Your task to perform on an android device: check out phone information Image 0: 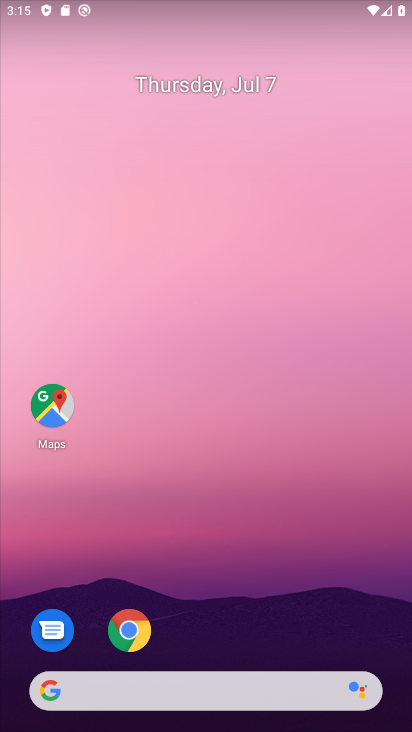
Step 0: drag from (360, 608) to (361, 182)
Your task to perform on an android device: check out phone information Image 1: 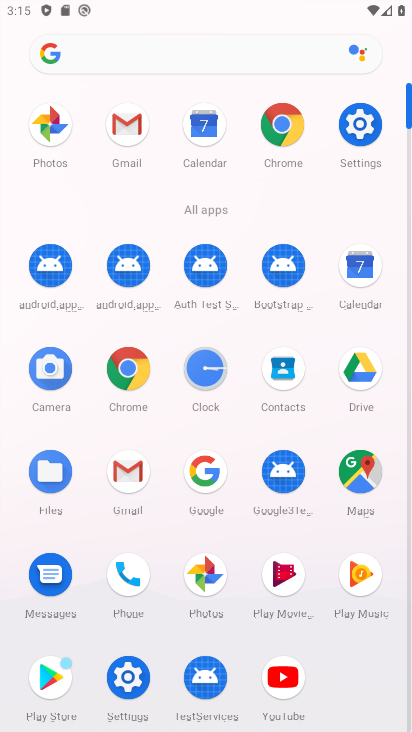
Step 1: click (125, 568)
Your task to perform on an android device: check out phone information Image 2: 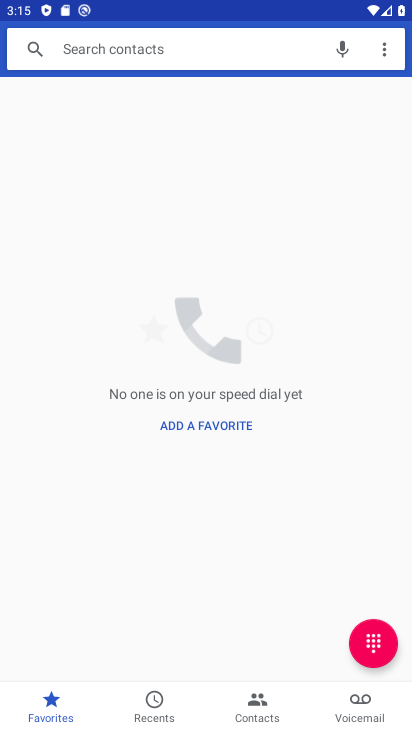
Step 2: task complete